Your task to perform on an android device: open a bookmark in the chrome app Image 0: 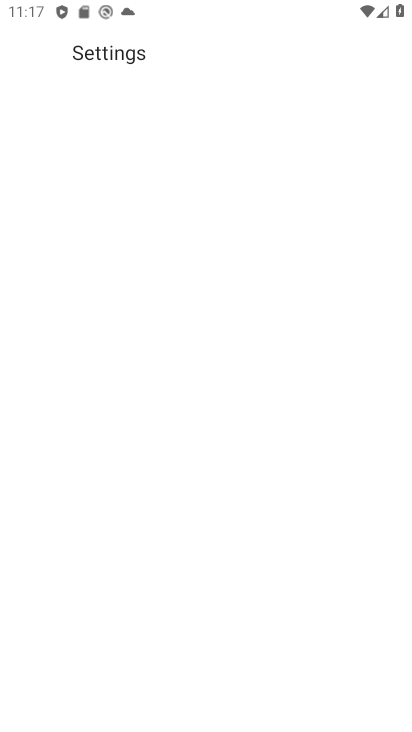
Step 0: click (411, 549)
Your task to perform on an android device: open a bookmark in the chrome app Image 1: 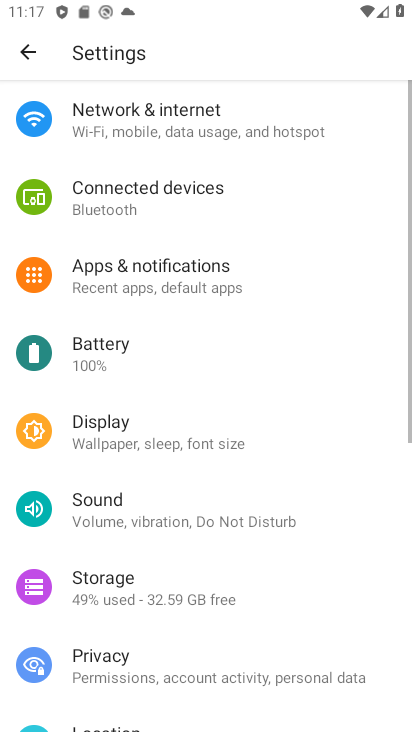
Step 1: press home button
Your task to perform on an android device: open a bookmark in the chrome app Image 2: 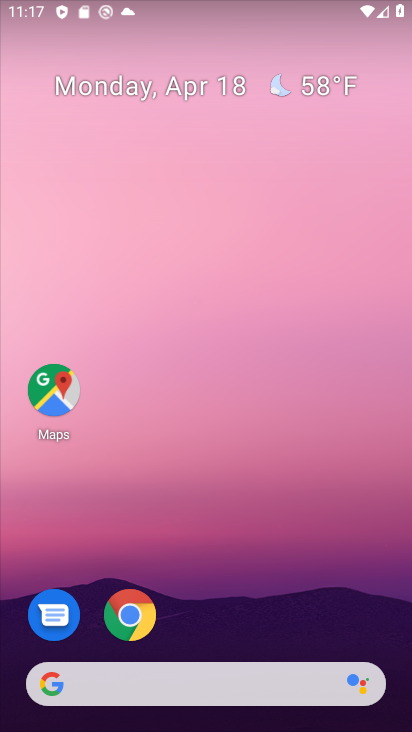
Step 2: drag from (381, 613) to (401, 95)
Your task to perform on an android device: open a bookmark in the chrome app Image 3: 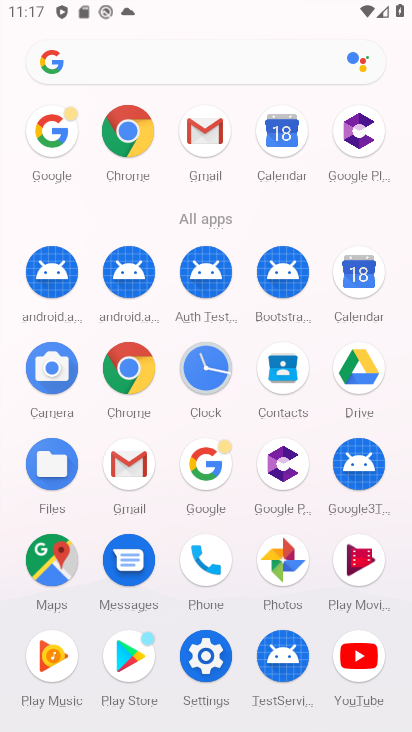
Step 3: click (133, 360)
Your task to perform on an android device: open a bookmark in the chrome app Image 4: 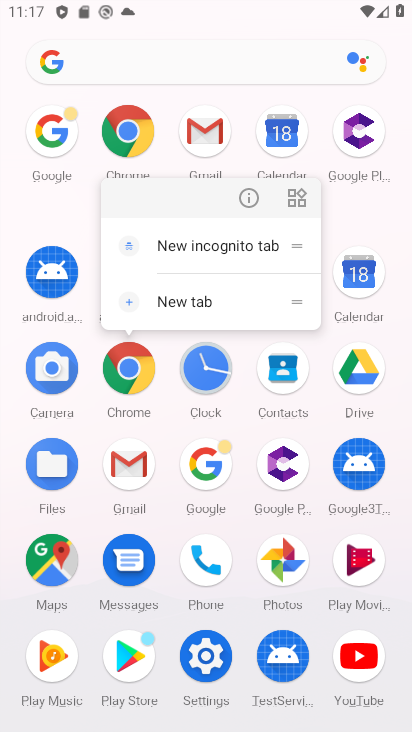
Step 4: click (141, 383)
Your task to perform on an android device: open a bookmark in the chrome app Image 5: 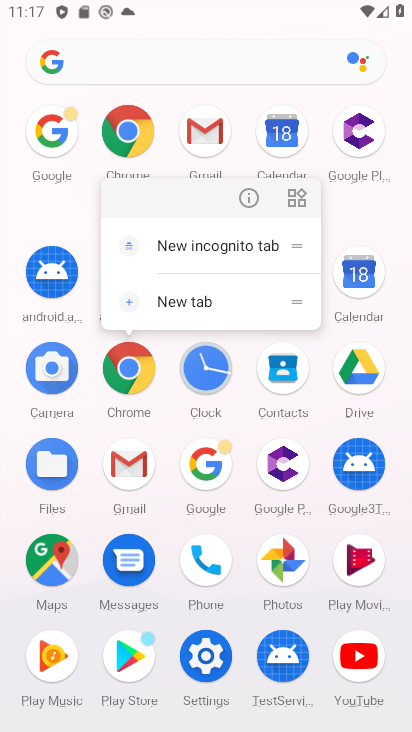
Step 5: click (141, 383)
Your task to perform on an android device: open a bookmark in the chrome app Image 6: 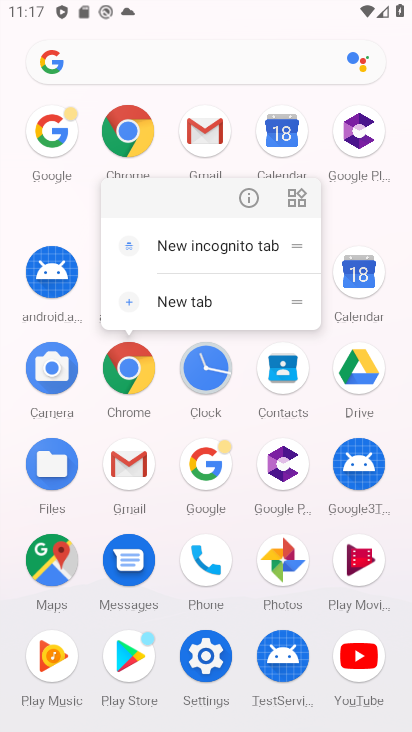
Step 6: click (142, 363)
Your task to perform on an android device: open a bookmark in the chrome app Image 7: 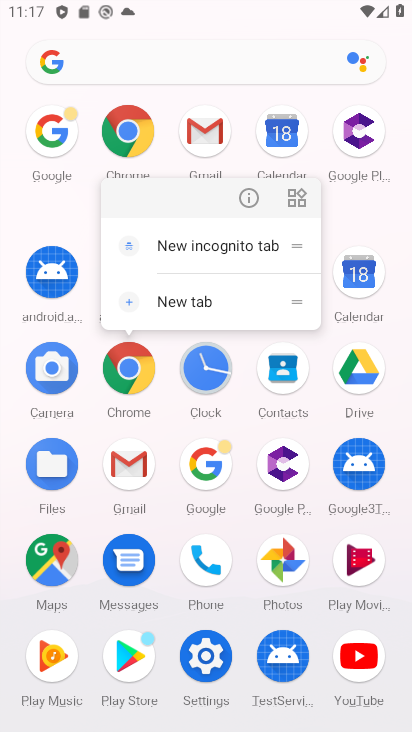
Step 7: click (142, 358)
Your task to perform on an android device: open a bookmark in the chrome app Image 8: 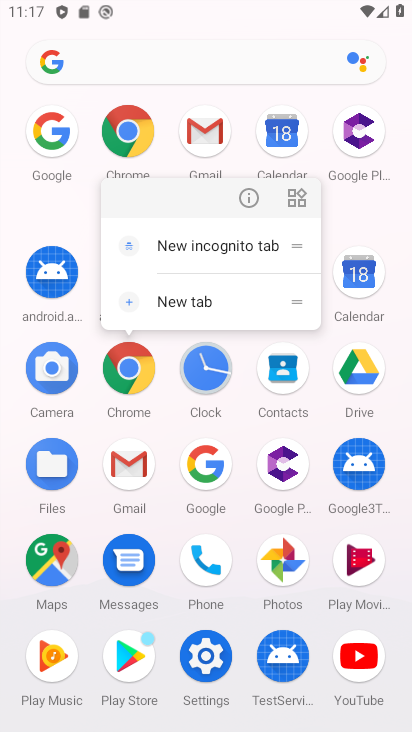
Step 8: click (125, 370)
Your task to perform on an android device: open a bookmark in the chrome app Image 9: 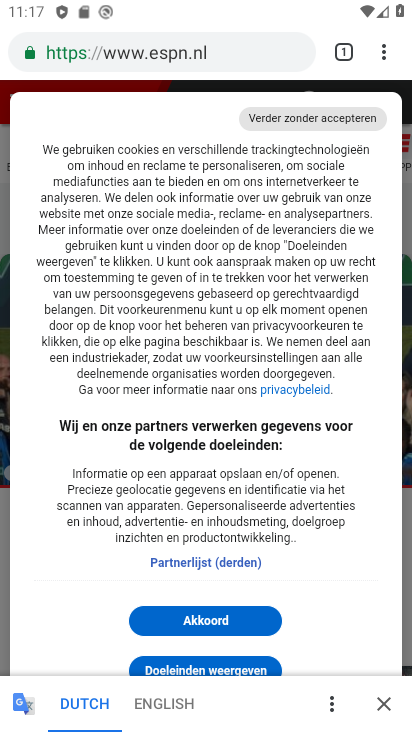
Step 9: click (138, 376)
Your task to perform on an android device: open a bookmark in the chrome app Image 10: 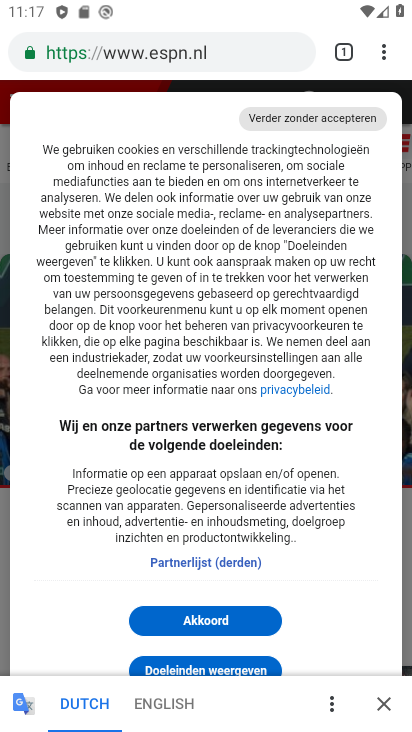
Step 10: click (386, 54)
Your task to perform on an android device: open a bookmark in the chrome app Image 11: 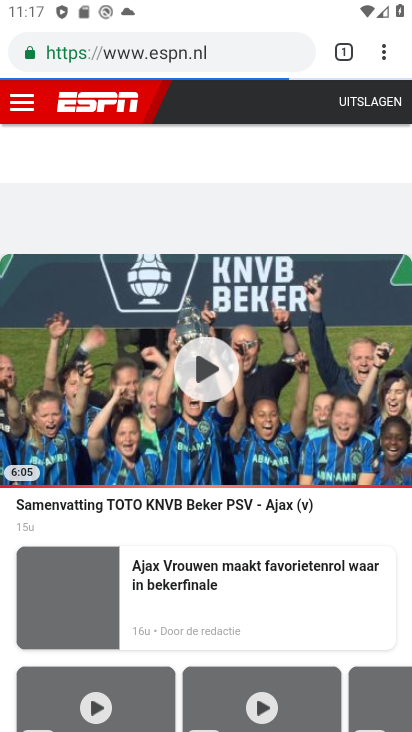
Step 11: click (386, 54)
Your task to perform on an android device: open a bookmark in the chrome app Image 12: 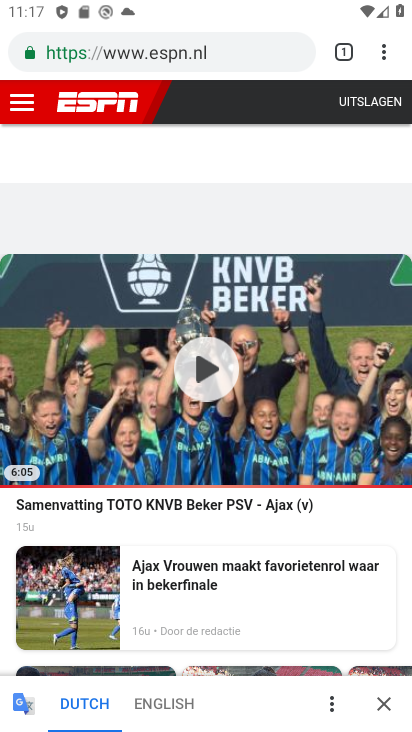
Step 12: click (386, 54)
Your task to perform on an android device: open a bookmark in the chrome app Image 13: 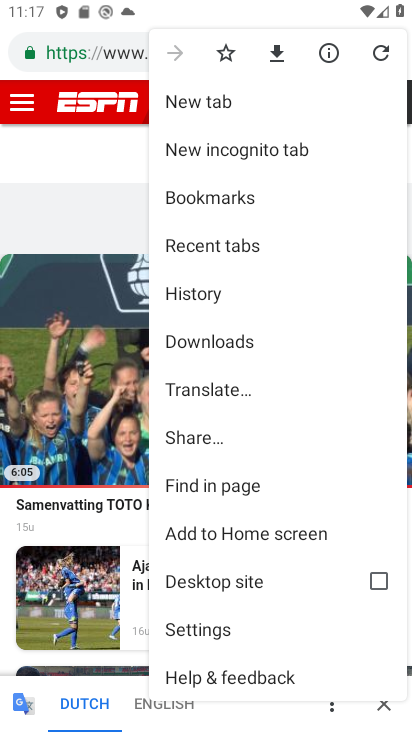
Step 13: click (232, 187)
Your task to perform on an android device: open a bookmark in the chrome app Image 14: 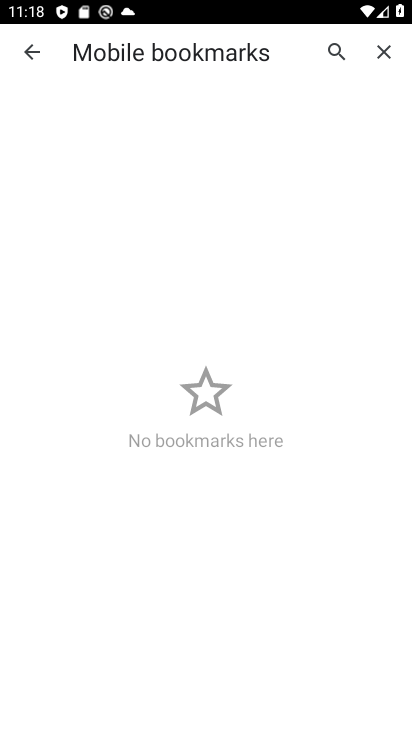
Step 14: task complete